Your task to perform on an android device: Go to calendar. Show me events next week Image 0: 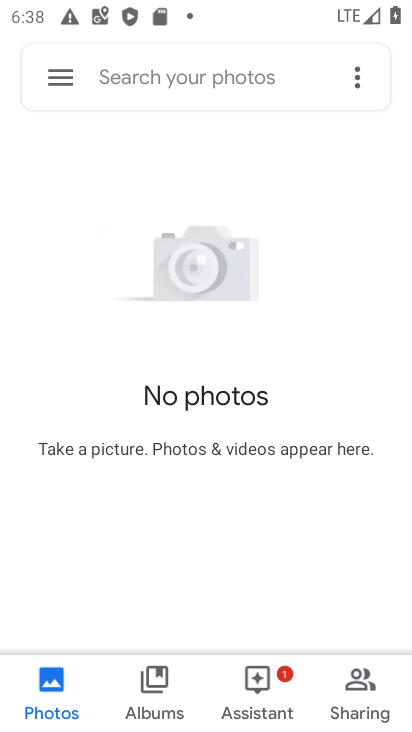
Step 0: press home button
Your task to perform on an android device: Go to calendar. Show me events next week Image 1: 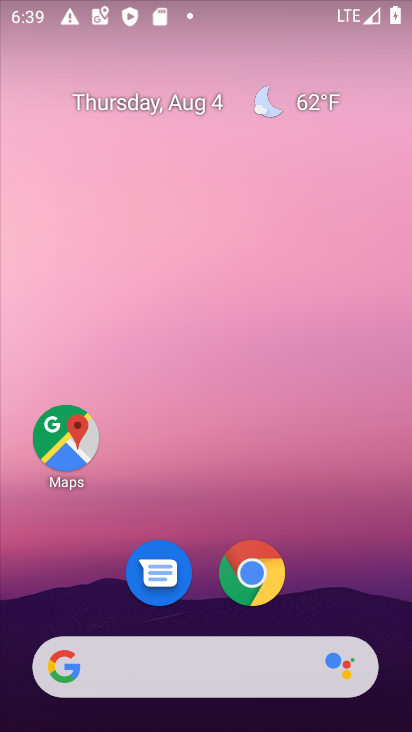
Step 1: drag from (334, 624) to (393, 237)
Your task to perform on an android device: Go to calendar. Show me events next week Image 2: 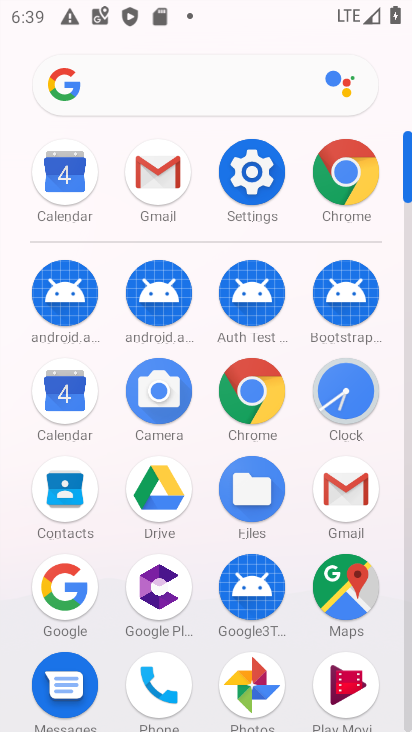
Step 2: click (60, 401)
Your task to perform on an android device: Go to calendar. Show me events next week Image 3: 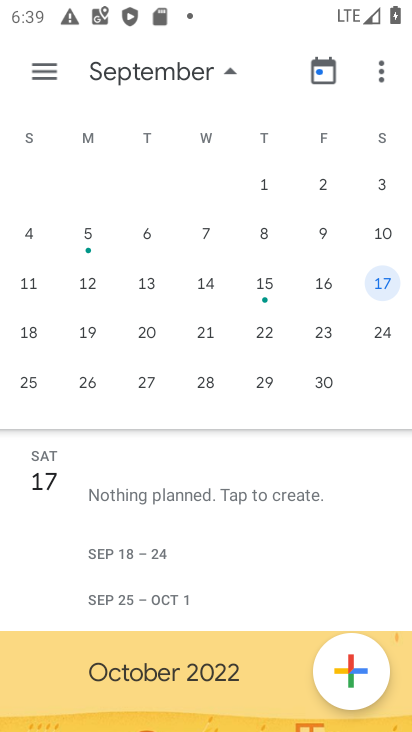
Step 3: click (221, 73)
Your task to perform on an android device: Go to calendar. Show me events next week Image 4: 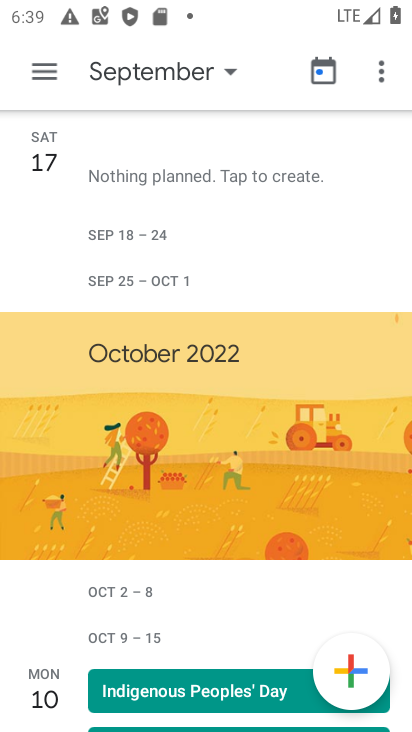
Step 4: click (225, 83)
Your task to perform on an android device: Go to calendar. Show me events next week Image 5: 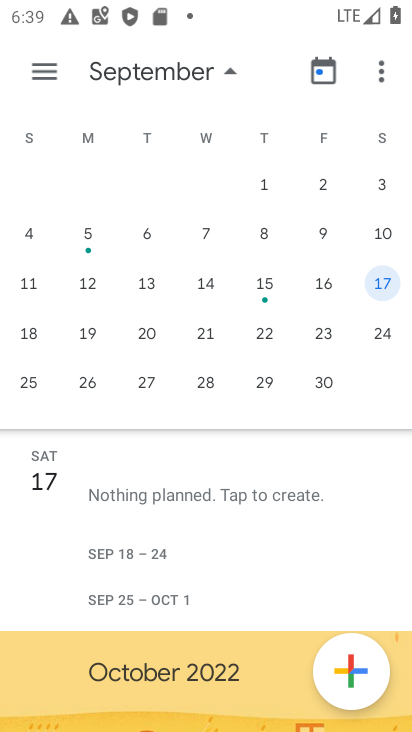
Step 5: drag from (142, 269) to (411, 291)
Your task to perform on an android device: Go to calendar. Show me events next week Image 6: 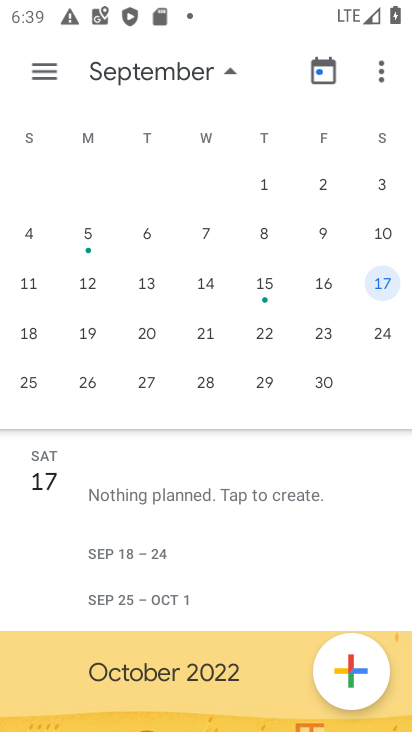
Step 6: drag from (118, 259) to (374, 246)
Your task to perform on an android device: Go to calendar. Show me events next week Image 7: 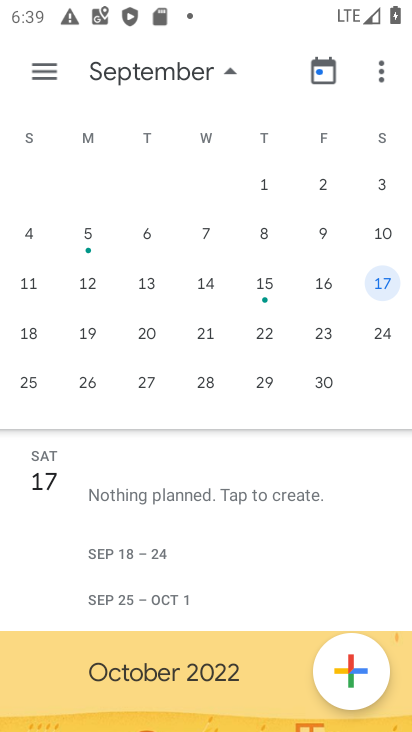
Step 7: drag from (67, 256) to (409, 311)
Your task to perform on an android device: Go to calendar. Show me events next week Image 8: 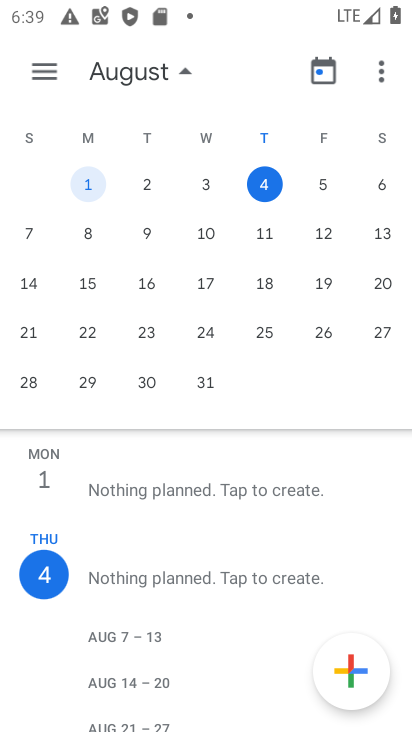
Step 8: click (41, 71)
Your task to perform on an android device: Go to calendar. Show me events next week Image 9: 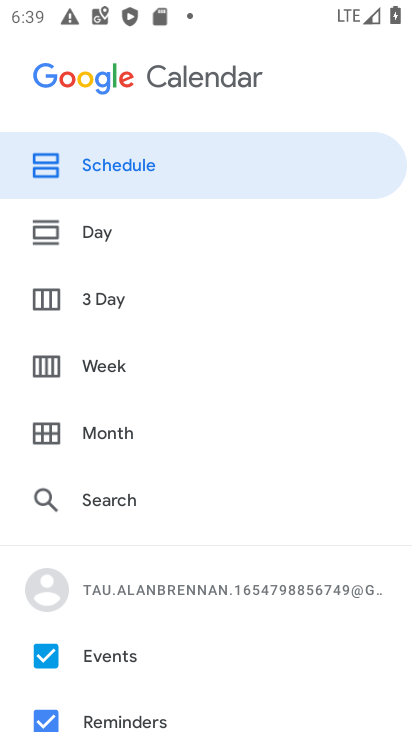
Step 9: click (107, 380)
Your task to perform on an android device: Go to calendar. Show me events next week Image 10: 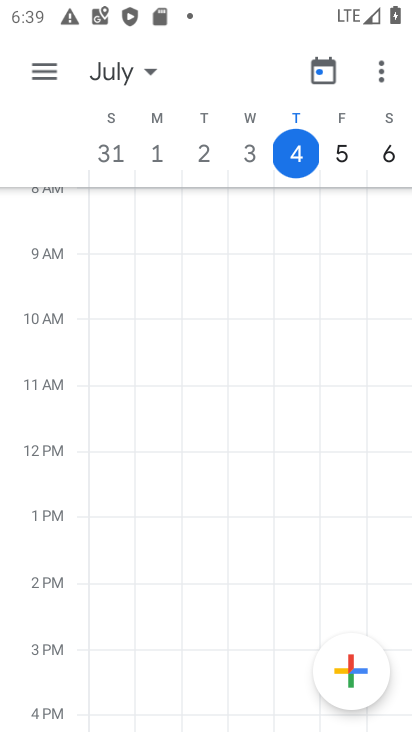
Step 10: task complete